Your task to perform on an android device: Open Chrome and go to the settings page Image 0: 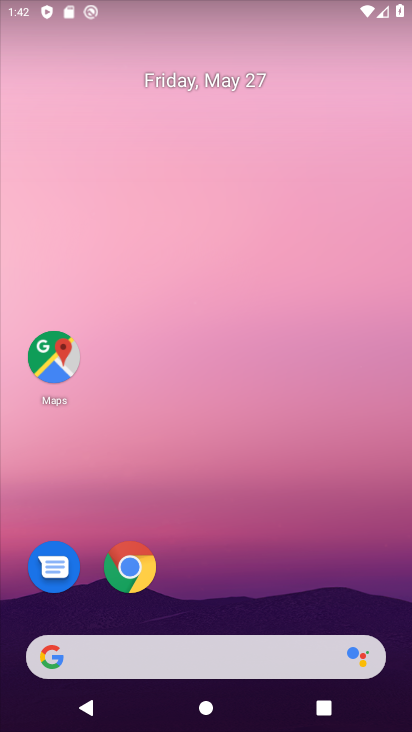
Step 0: drag from (217, 613) to (184, 81)
Your task to perform on an android device: Open Chrome and go to the settings page Image 1: 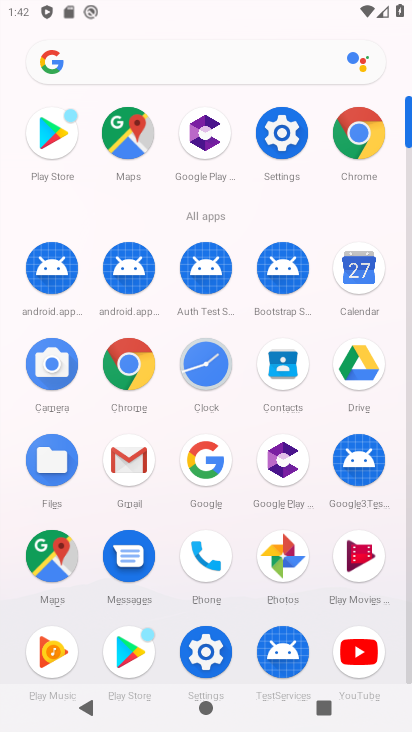
Step 1: click (369, 144)
Your task to perform on an android device: Open Chrome and go to the settings page Image 2: 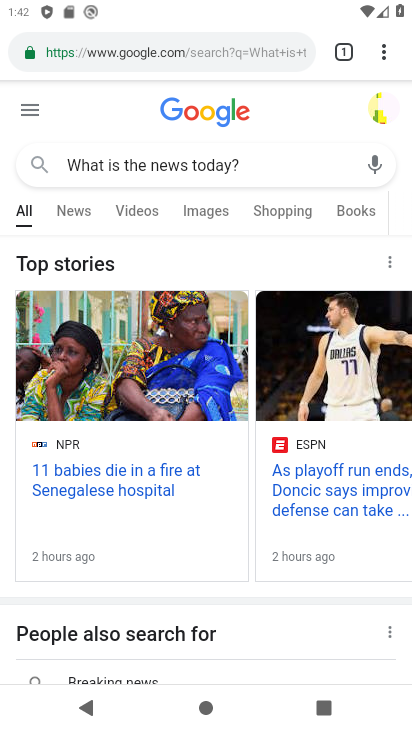
Step 2: click (386, 44)
Your task to perform on an android device: Open Chrome and go to the settings page Image 3: 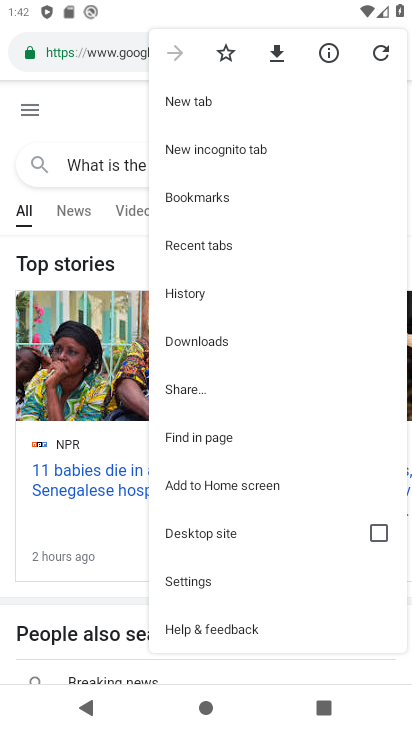
Step 3: click (215, 580)
Your task to perform on an android device: Open Chrome and go to the settings page Image 4: 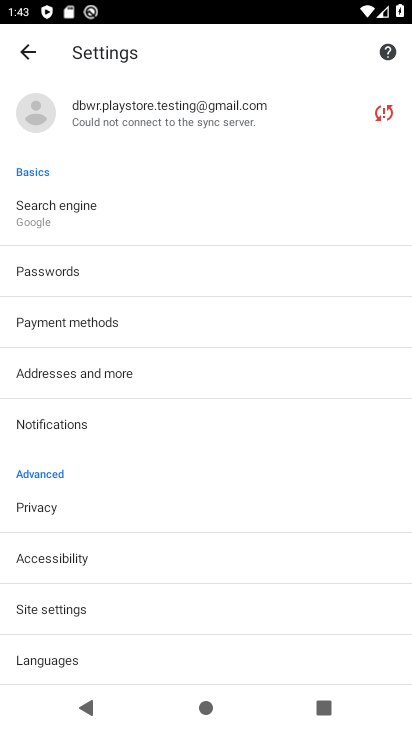
Step 4: task complete